Your task to perform on an android device: check storage Image 0: 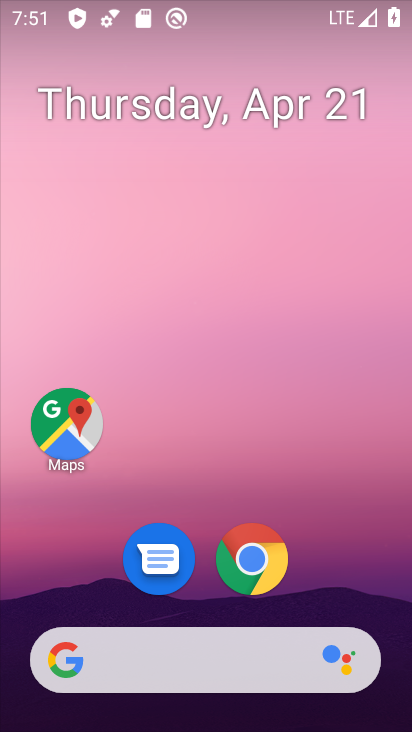
Step 0: drag from (373, 532) to (393, 162)
Your task to perform on an android device: check storage Image 1: 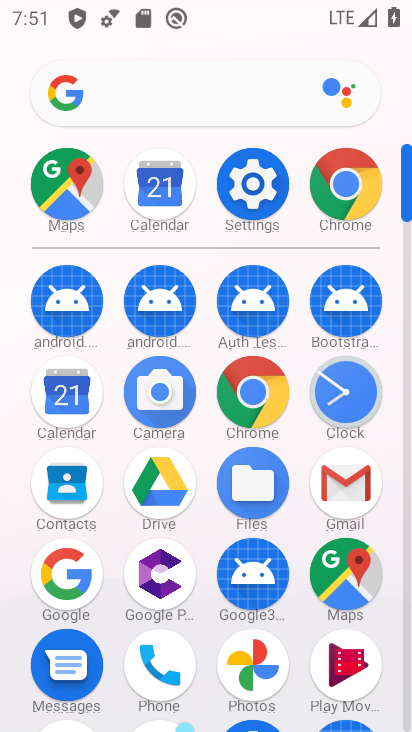
Step 1: click (264, 191)
Your task to perform on an android device: check storage Image 2: 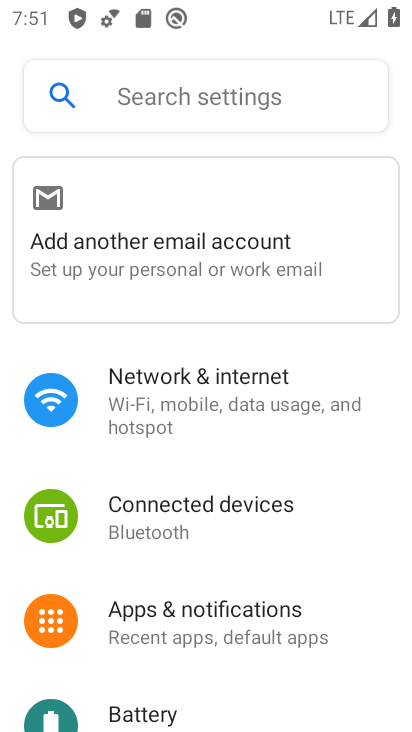
Step 2: drag from (262, 566) to (338, 225)
Your task to perform on an android device: check storage Image 3: 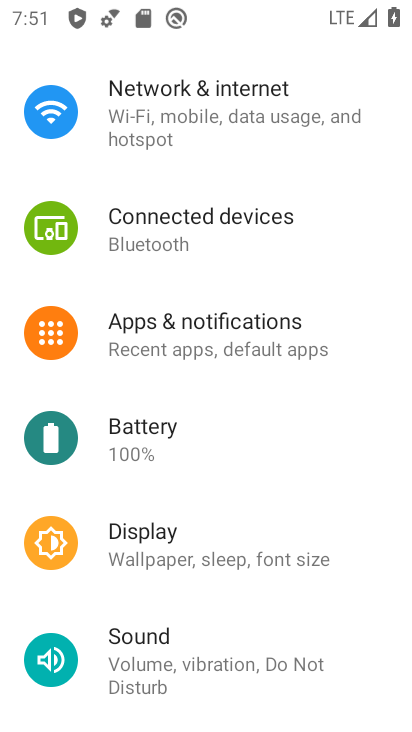
Step 3: drag from (290, 617) to (322, 318)
Your task to perform on an android device: check storage Image 4: 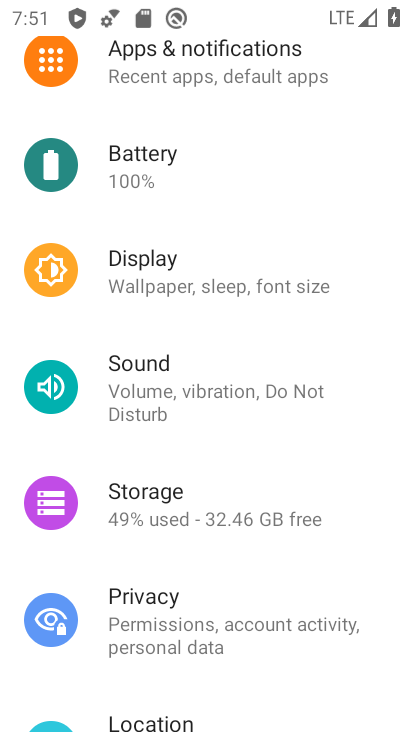
Step 4: click (207, 530)
Your task to perform on an android device: check storage Image 5: 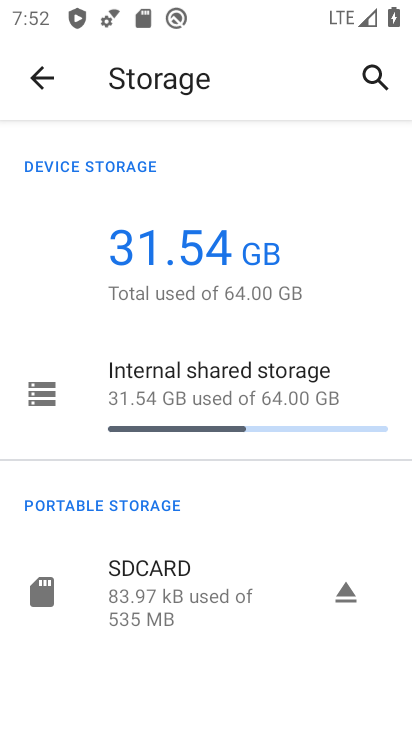
Step 5: click (31, 395)
Your task to perform on an android device: check storage Image 6: 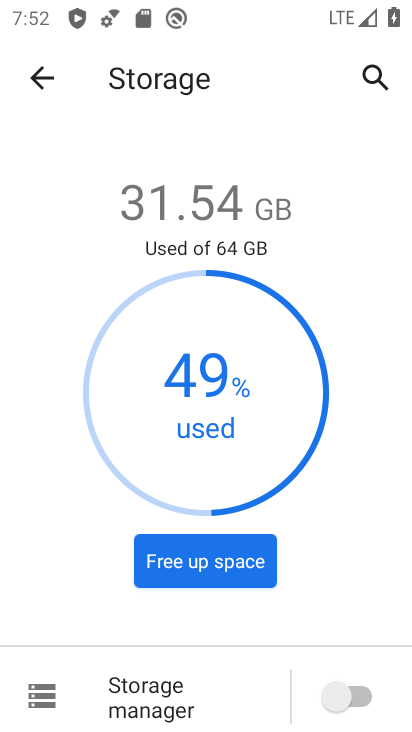
Step 6: task complete